Your task to perform on an android device: Turn on the flashlight Image 0: 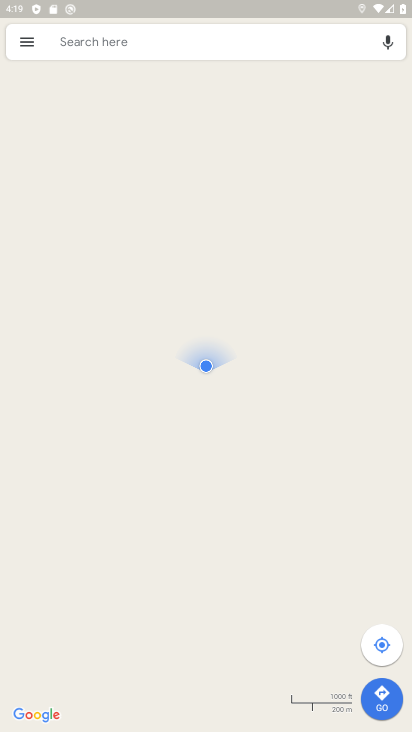
Step 0: drag from (314, 20) to (200, 627)
Your task to perform on an android device: Turn on the flashlight Image 1: 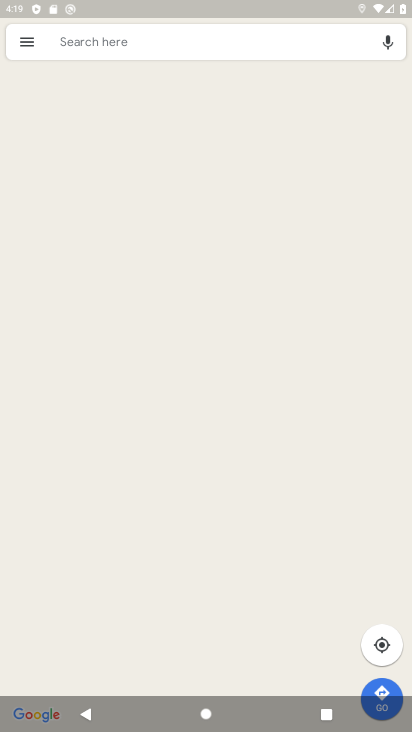
Step 1: task complete